Your task to perform on an android device: open a bookmark in the chrome app Image 0: 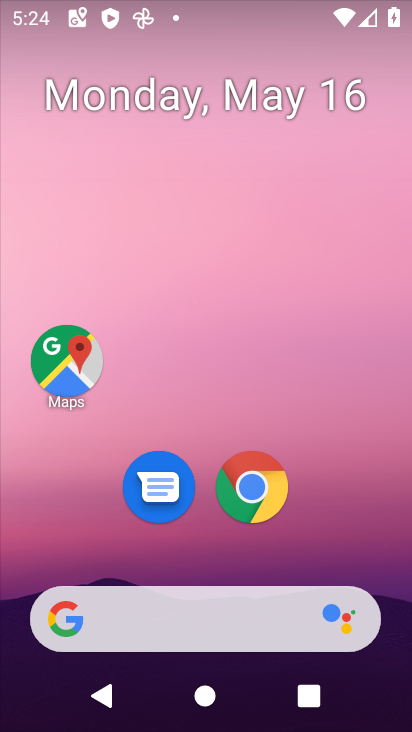
Step 0: click (252, 482)
Your task to perform on an android device: open a bookmark in the chrome app Image 1: 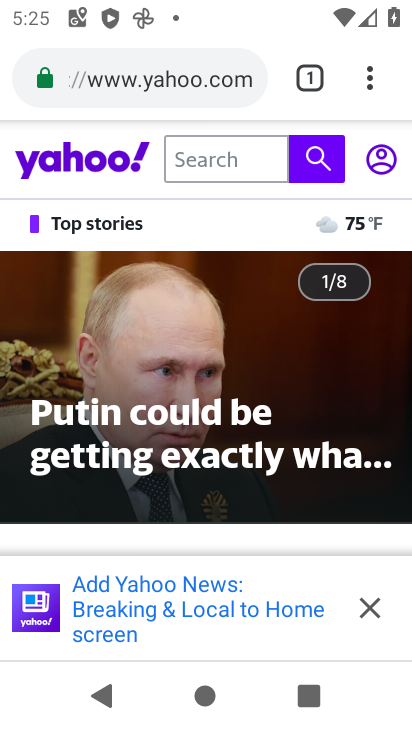
Step 1: click (369, 86)
Your task to perform on an android device: open a bookmark in the chrome app Image 2: 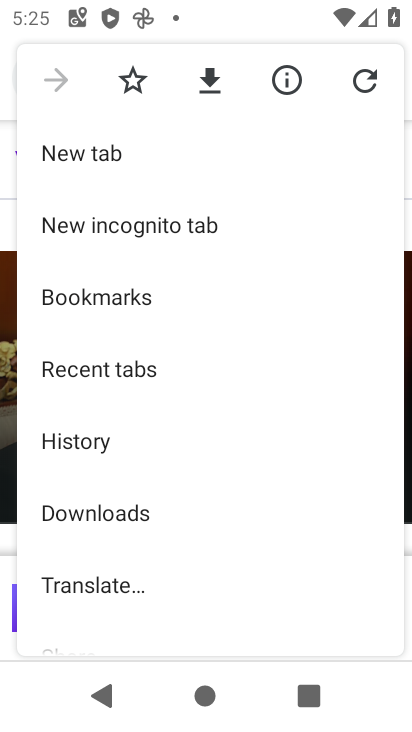
Step 2: click (123, 295)
Your task to perform on an android device: open a bookmark in the chrome app Image 3: 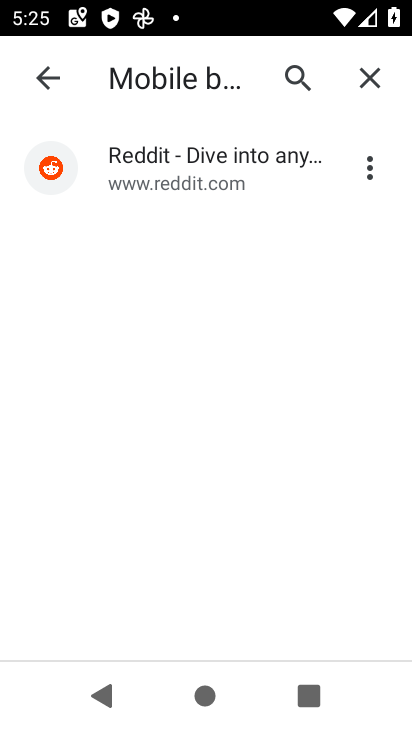
Step 3: task complete